Your task to perform on an android device: Open location settings Image 0: 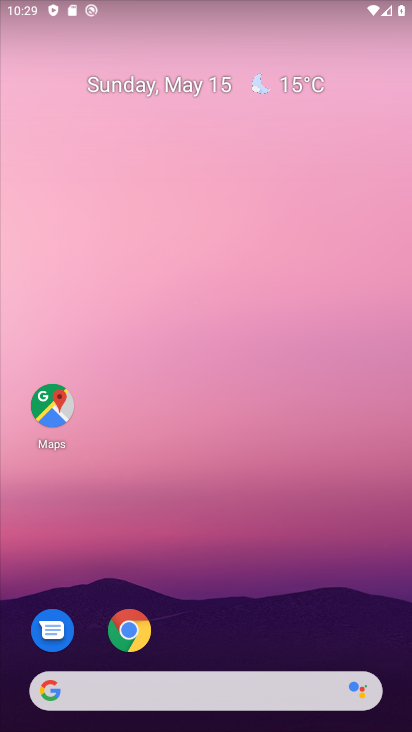
Step 0: drag from (208, 730) to (206, 170)
Your task to perform on an android device: Open location settings Image 1: 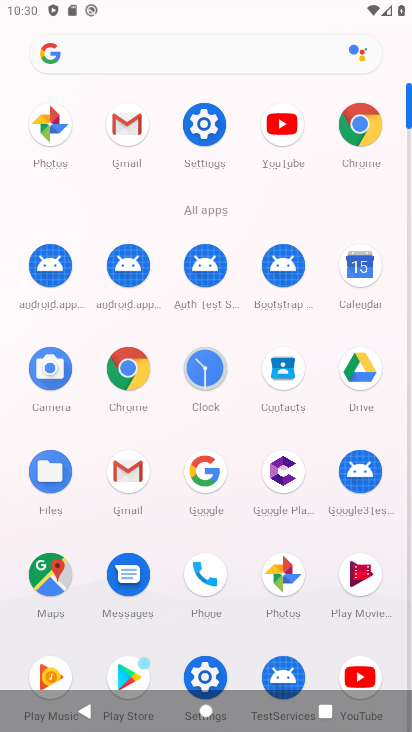
Step 1: click (200, 125)
Your task to perform on an android device: Open location settings Image 2: 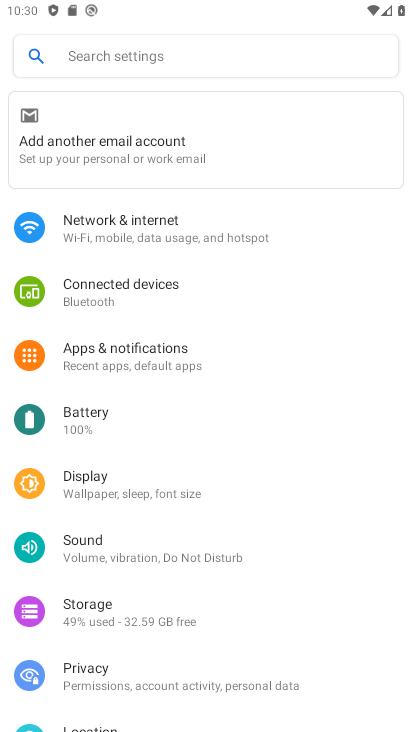
Step 2: drag from (124, 642) to (125, 267)
Your task to perform on an android device: Open location settings Image 3: 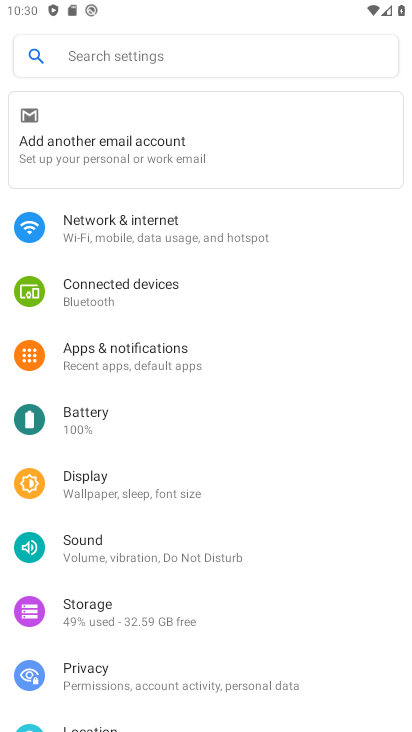
Step 3: drag from (167, 669) to (154, 323)
Your task to perform on an android device: Open location settings Image 4: 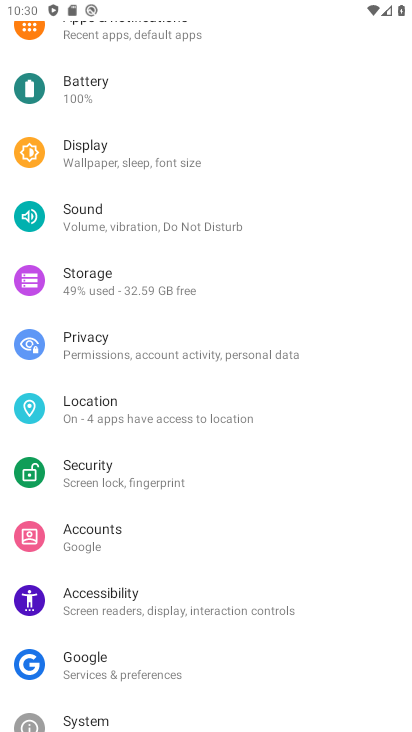
Step 4: click (86, 412)
Your task to perform on an android device: Open location settings Image 5: 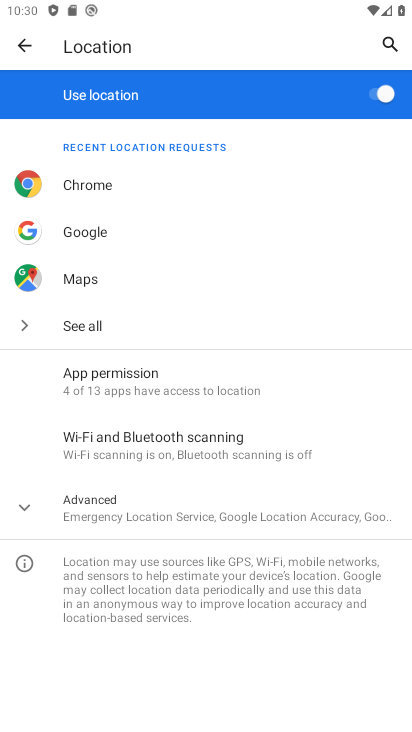
Step 5: task complete